Your task to perform on an android device: See recent photos Image 0: 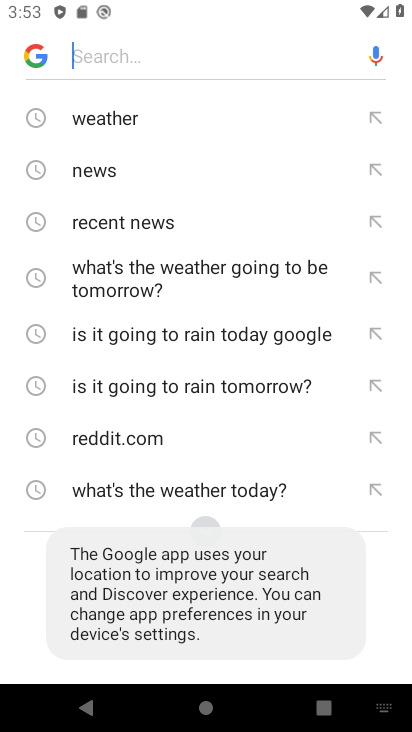
Step 0: press home button
Your task to perform on an android device: See recent photos Image 1: 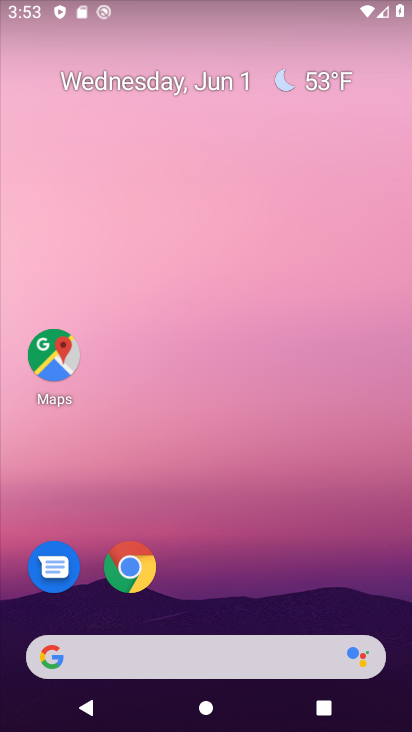
Step 1: drag from (181, 622) to (261, 194)
Your task to perform on an android device: See recent photos Image 2: 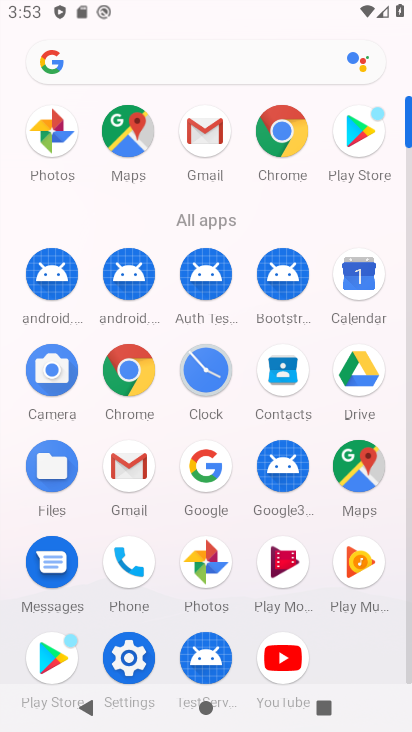
Step 2: click (206, 573)
Your task to perform on an android device: See recent photos Image 3: 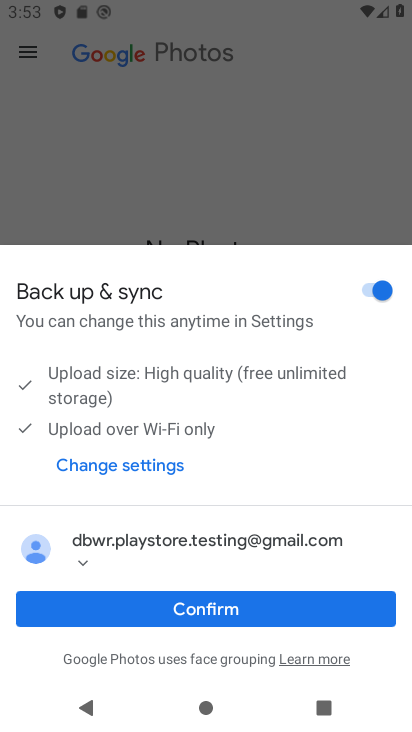
Step 3: click (209, 623)
Your task to perform on an android device: See recent photos Image 4: 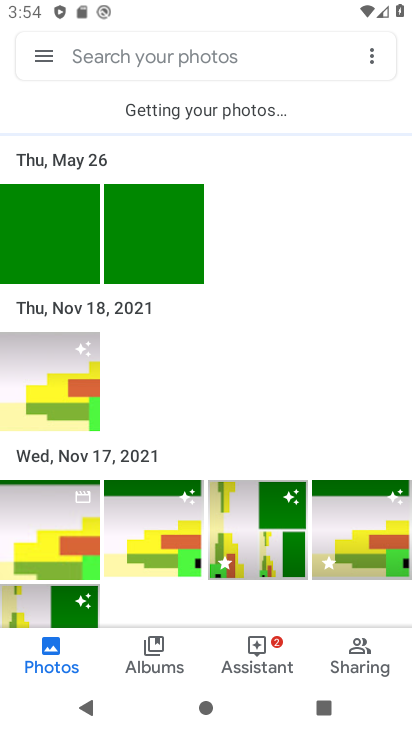
Step 4: task complete